Your task to perform on an android device: turn off location history Image 0: 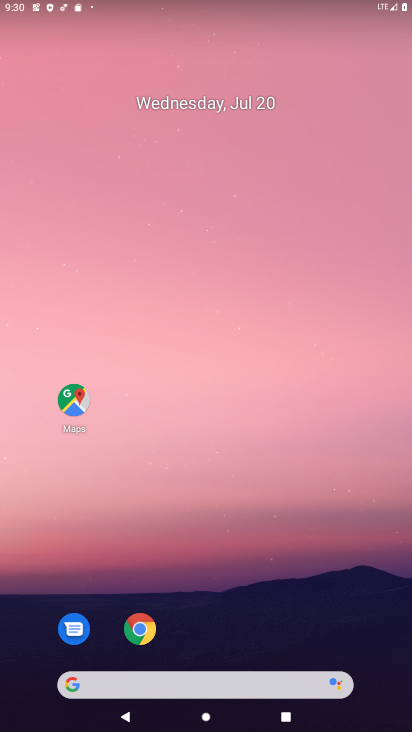
Step 0: press home button
Your task to perform on an android device: turn off location history Image 1: 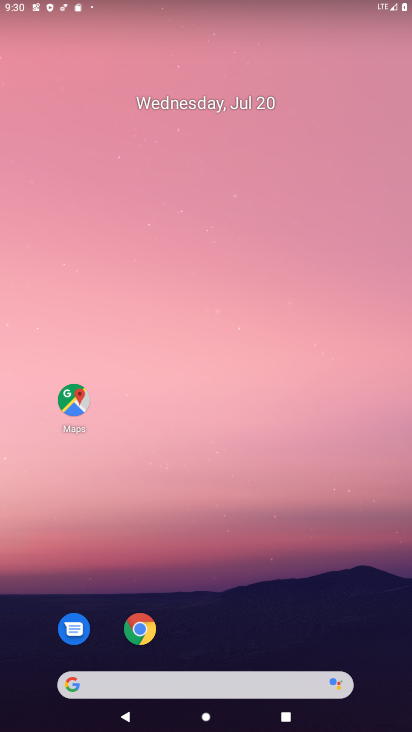
Step 1: drag from (275, 625) to (270, 104)
Your task to perform on an android device: turn off location history Image 2: 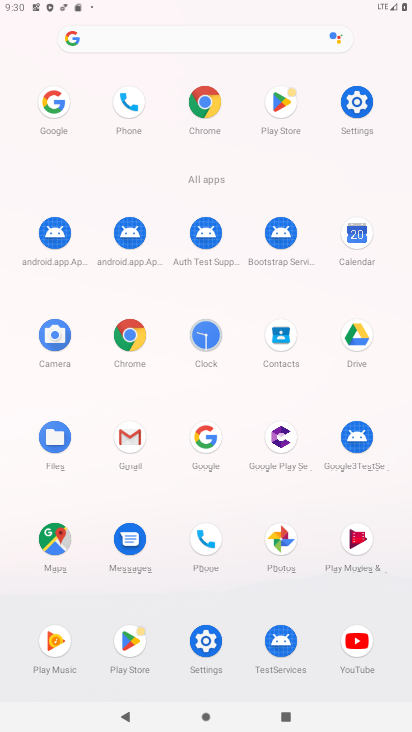
Step 2: click (65, 530)
Your task to perform on an android device: turn off location history Image 3: 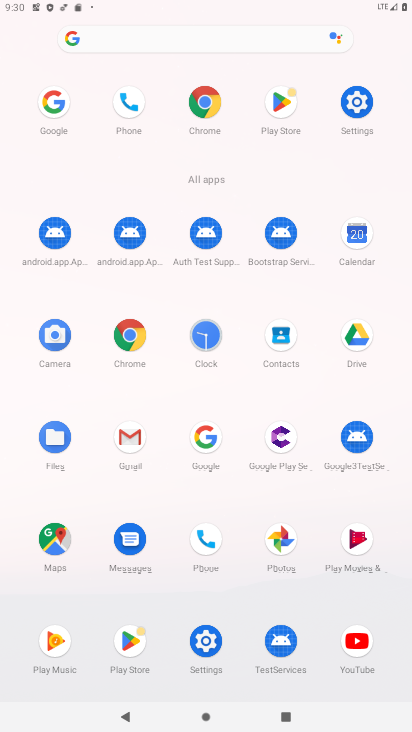
Step 3: click (53, 550)
Your task to perform on an android device: turn off location history Image 4: 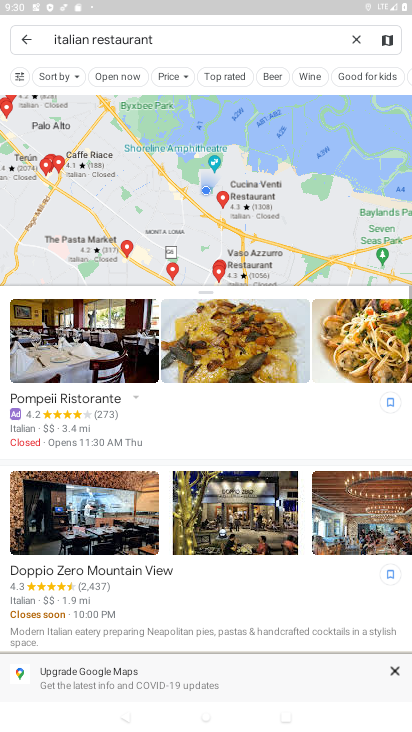
Step 4: click (27, 46)
Your task to perform on an android device: turn off location history Image 5: 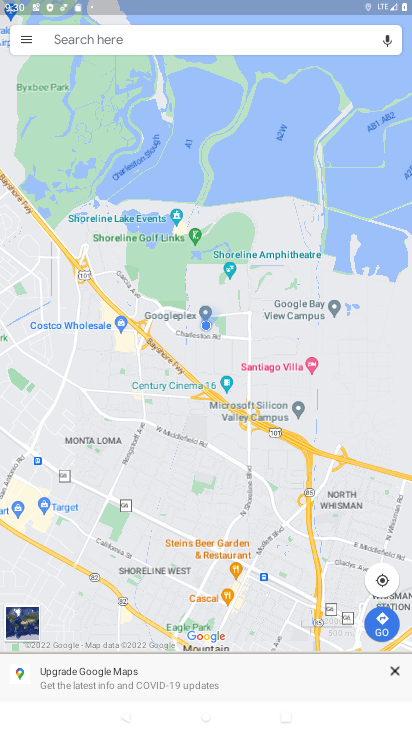
Step 5: click (22, 36)
Your task to perform on an android device: turn off location history Image 6: 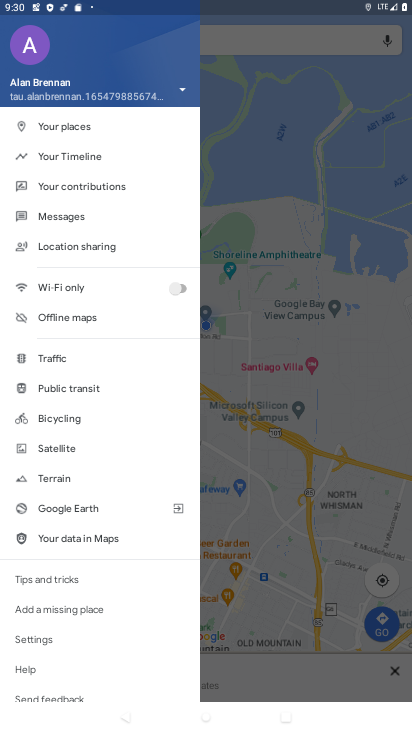
Step 6: click (71, 164)
Your task to perform on an android device: turn off location history Image 7: 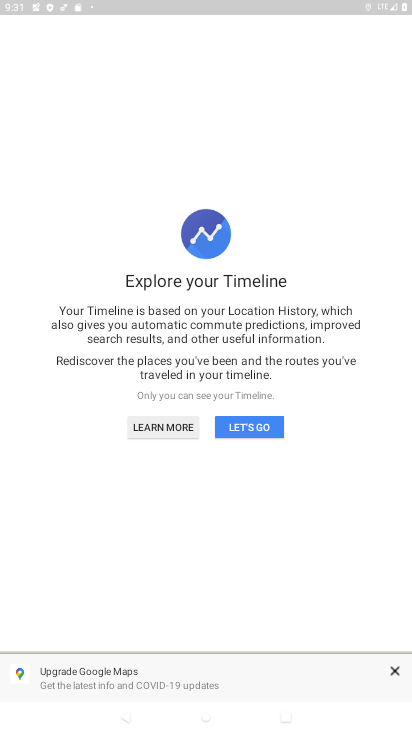
Step 7: click (277, 430)
Your task to perform on an android device: turn off location history Image 8: 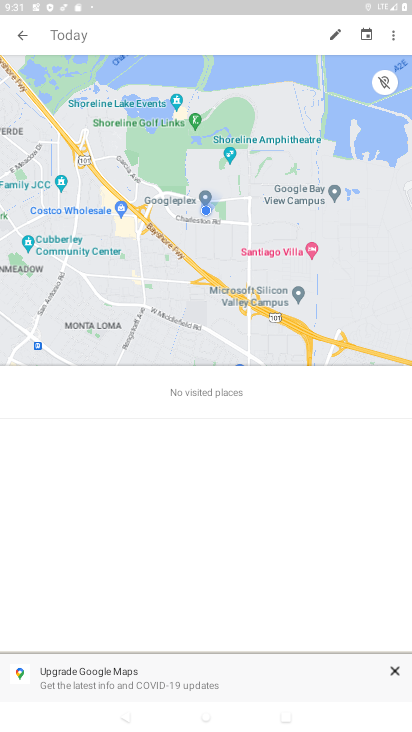
Step 8: click (399, 30)
Your task to perform on an android device: turn off location history Image 9: 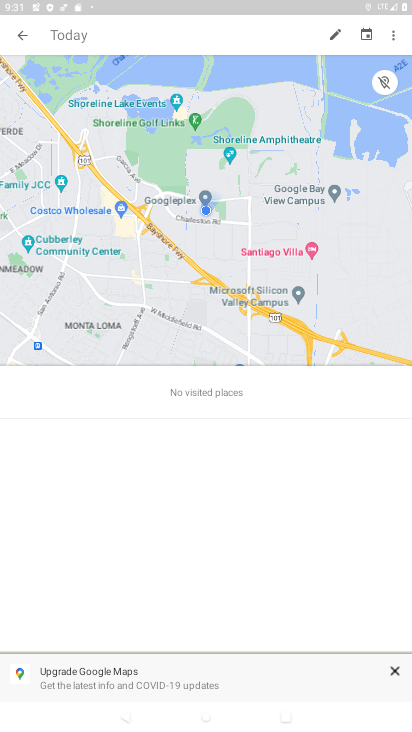
Step 9: click (399, 30)
Your task to perform on an android device: turn off location history Image 10: 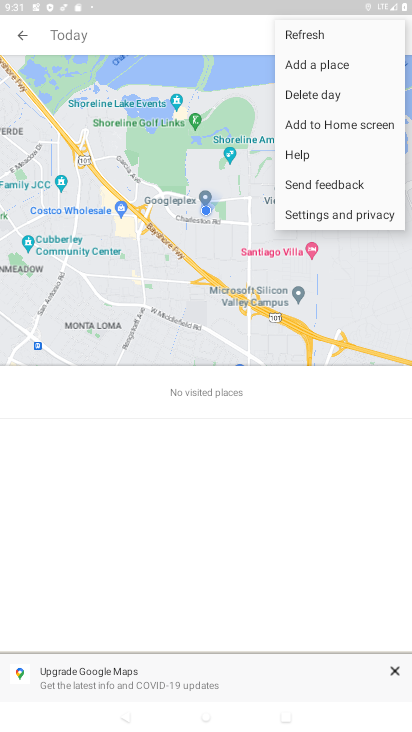
Step 10: click (342, 217)
Your task to perform on an android device: turn off location history Image 11: 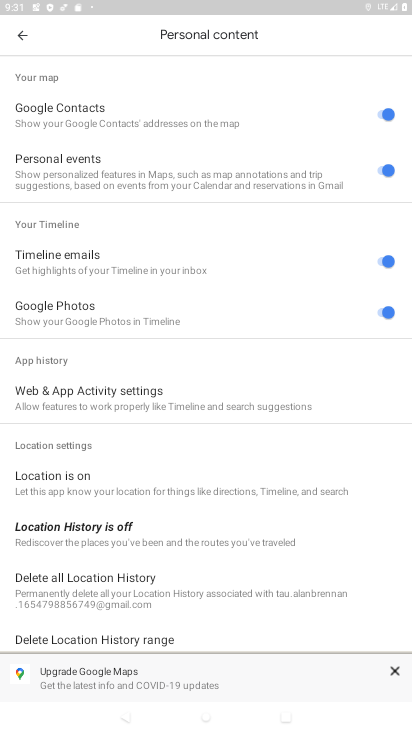
Step 11: click (175, 539)
Your task to perform on an android device: turn off location history Image 12: 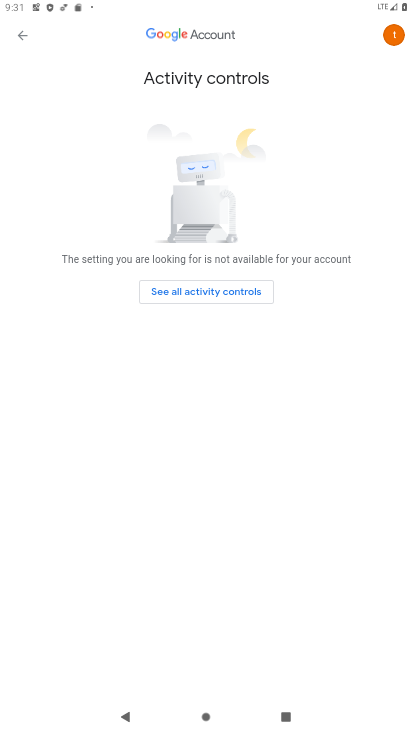
Step 12: click (174, 303)
Your task to perform on an android device: turn off location history Image 13: 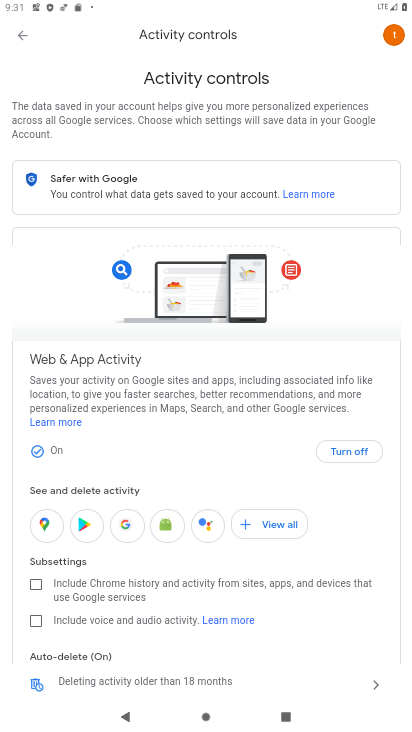
Step 13: click (366, 447)
Your task to perform on an android device: turn off location history Image 14: 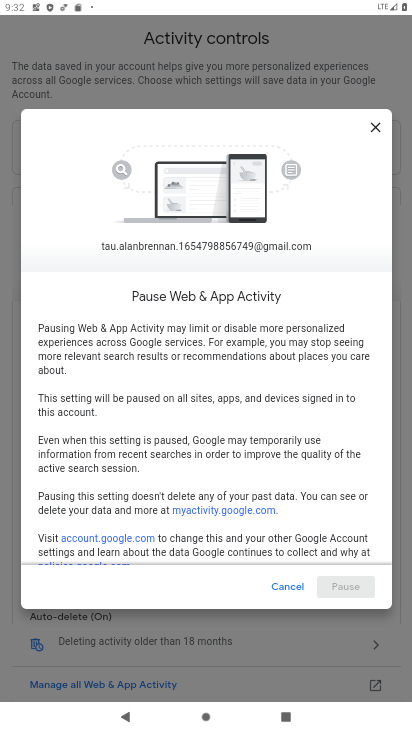
Step 14: drag from (313, 540) to (295, 235)
Your task to perform on an android device: turn off location history Image 15: 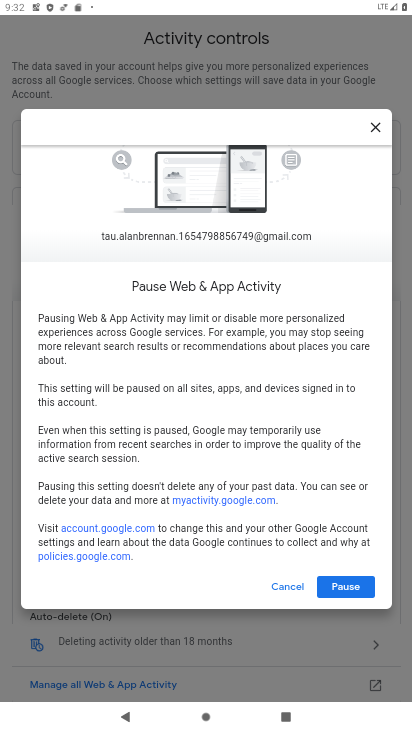
Step 15: click (336, 587)
Your task to perform on an android device: turn off location history Image 16: 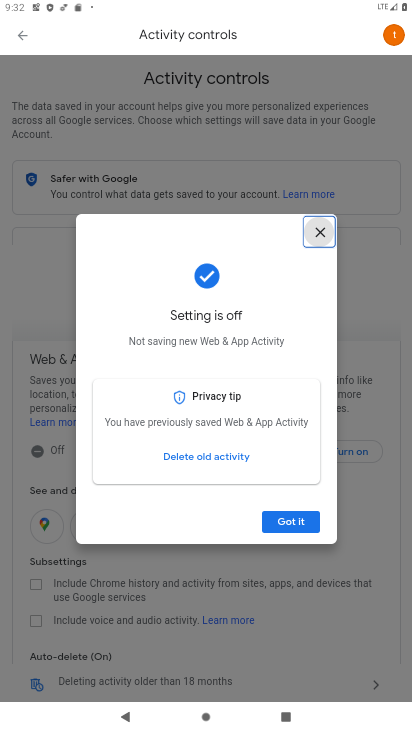
Step 16: click (275, 518)
Your task to perform on an android device: turn off location history Image 17: 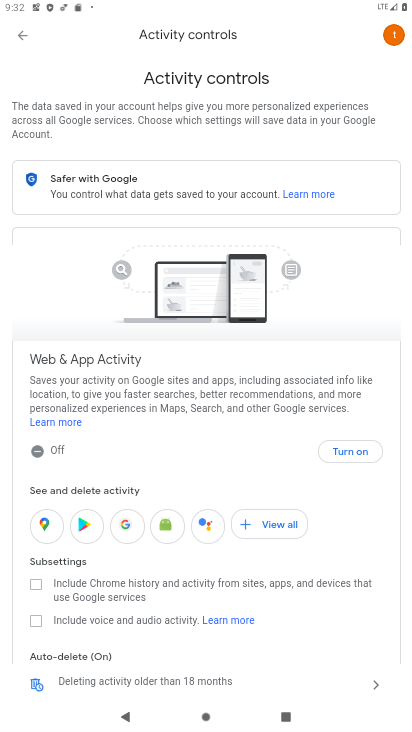
Step 17: task complete